Your task to perform on an android device: turn off data saver in the chrome app Image 0: 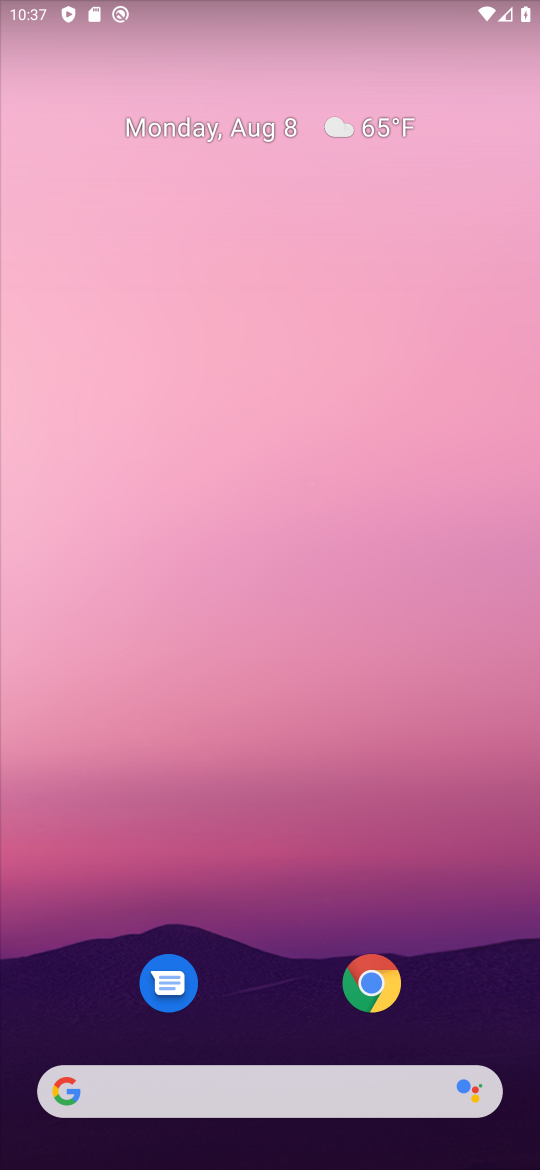
Step 0: drag from (296, 1004) to (290, 380)
Your task to perform on an android device: turn off data saver in the chrome app Image 1: 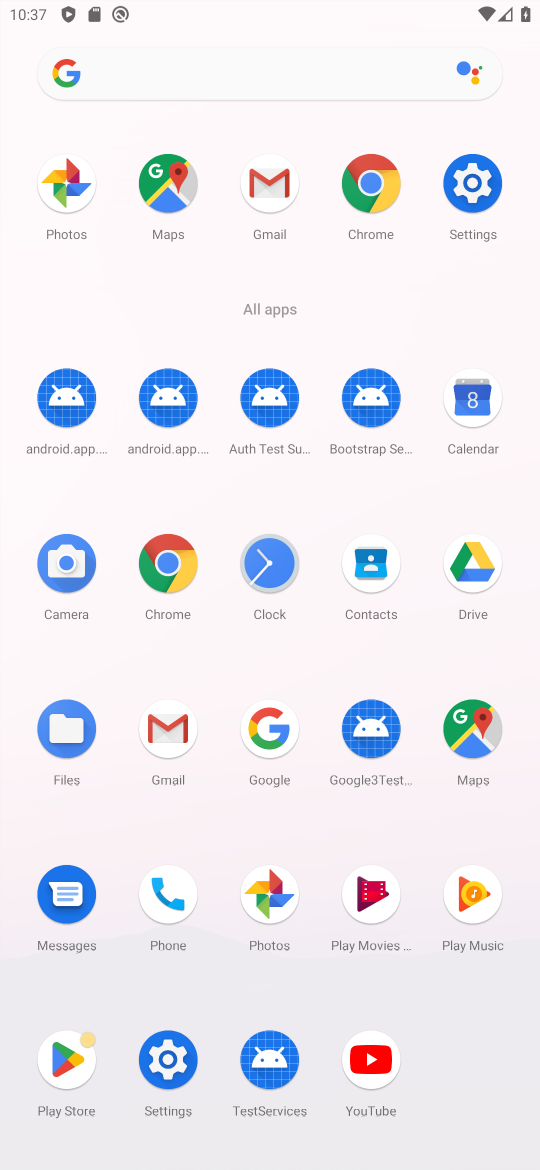
Step 1: click (375, 247)
Your task to perform on an android device: turn off data saver in the chrome app Image 2: 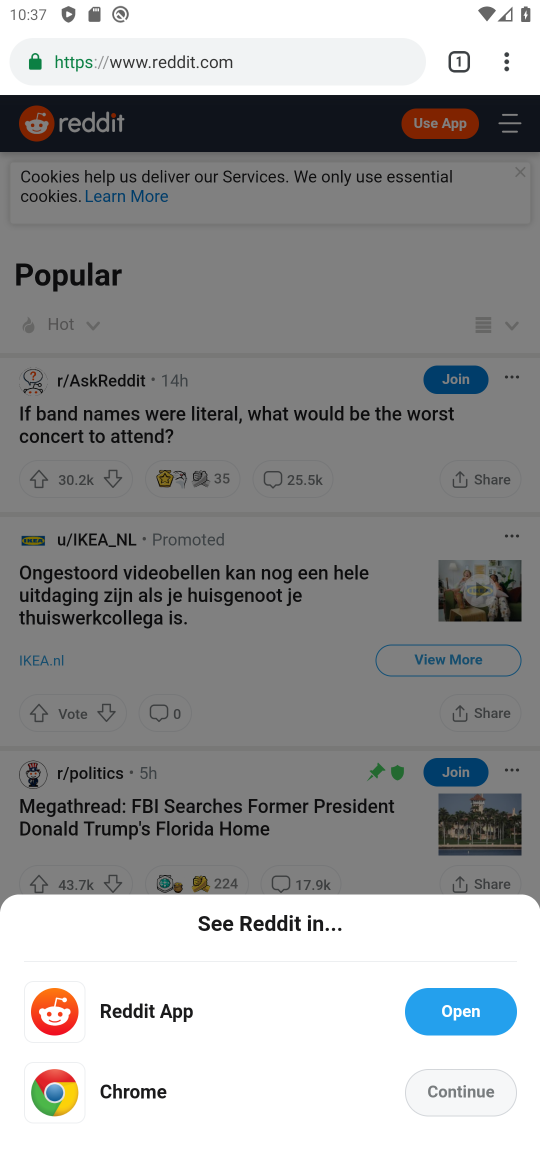
Step 2: click (438, 1101)
Your task to perform on an android device: turn off data saver in the chrome app Image 3: 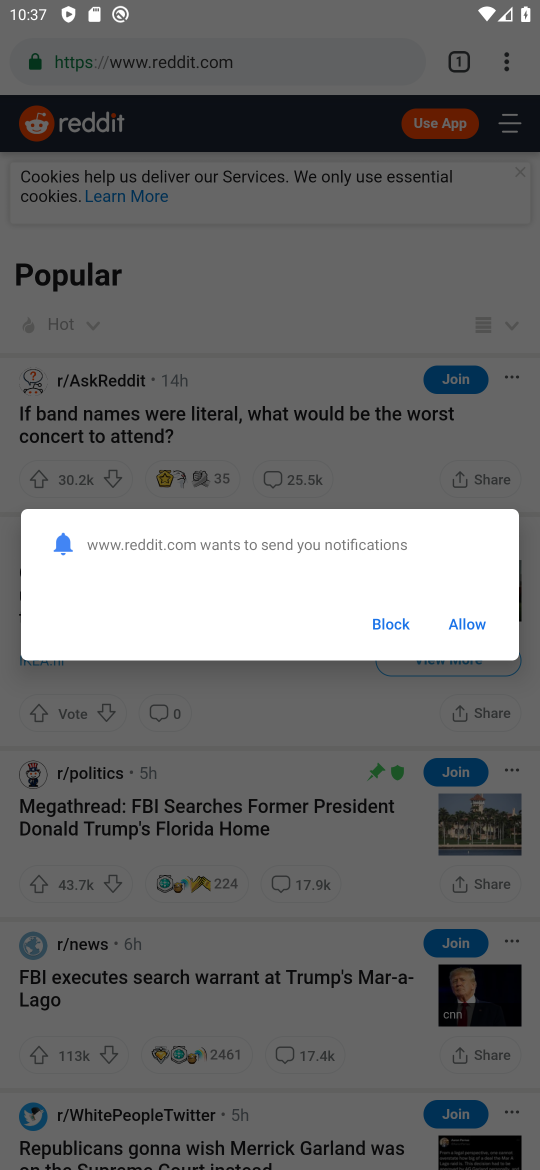
Step 3: click (507, 54)
Your task to perform on an android device: turn off data saver in the chrome app Image 4: 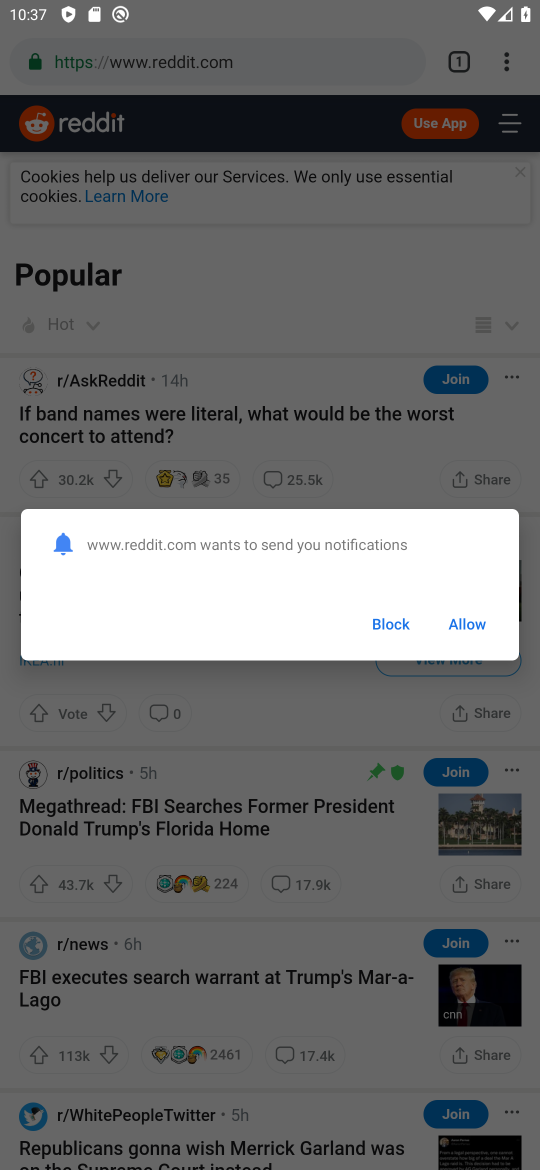
Step 4: click (362, 636)
Your task to perform on an android device: turn off data saver in the chrome app Image 5: 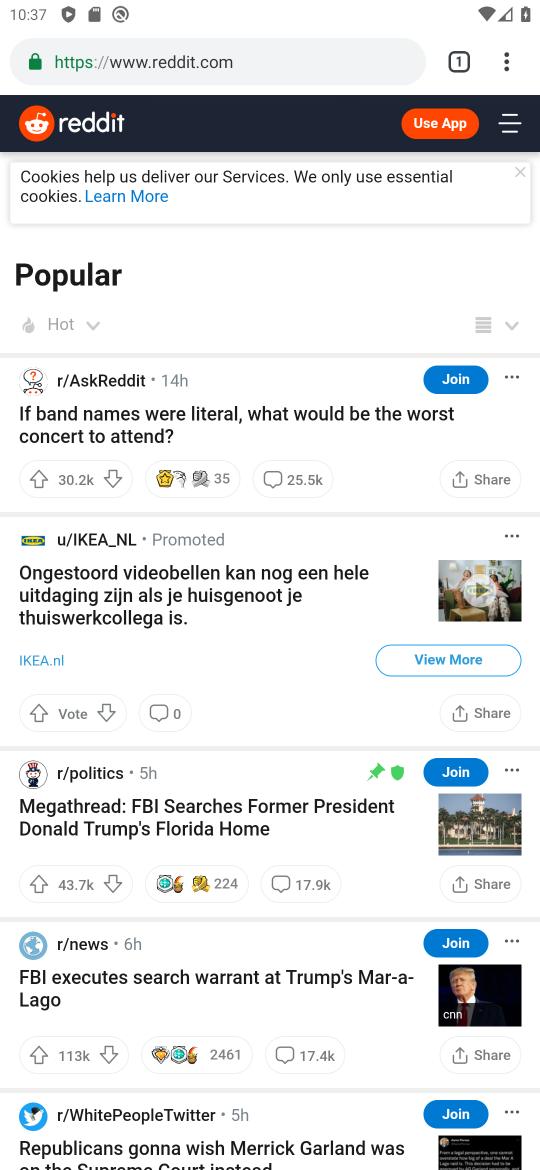
Step 5: click (508, 58)
Your task to perform on an android device: turn off data saver in the chrome app Image 6: 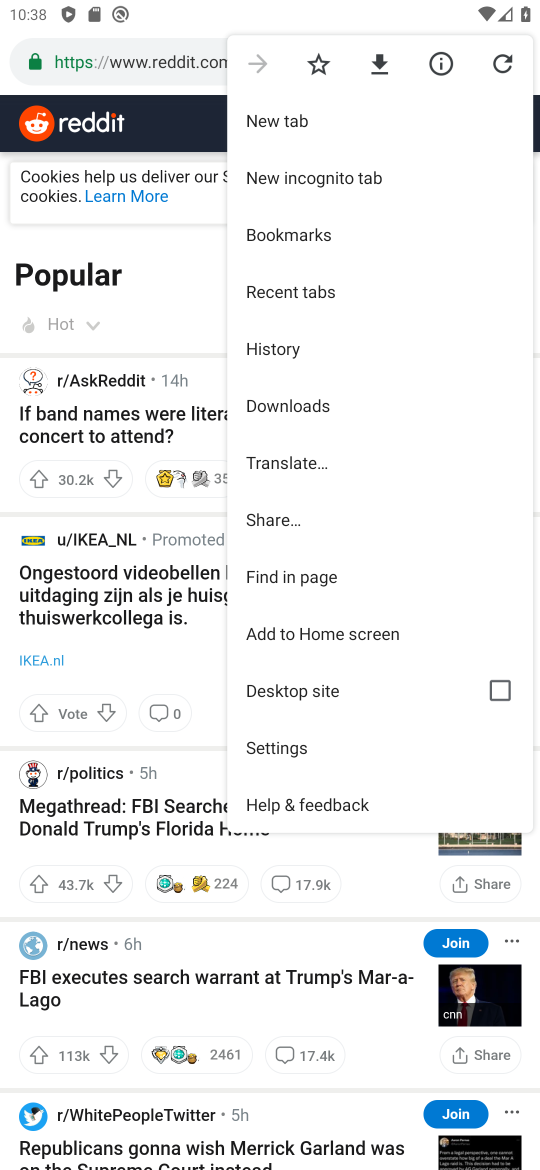
Step 6: click (286, 735)
Your task to perform on an android device: turn off data saver in the chrome app Image 7: 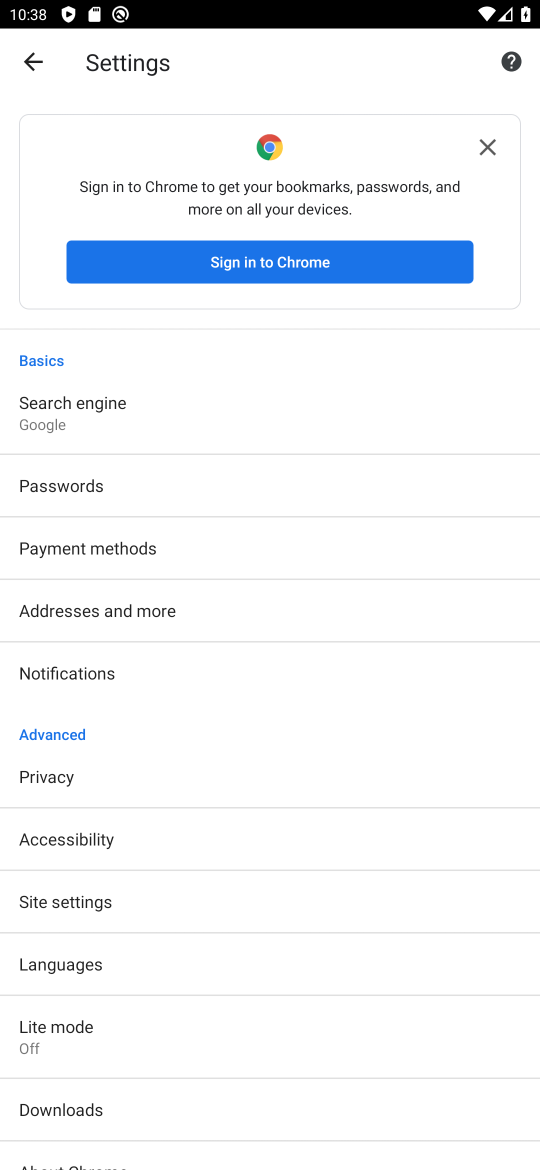
Step 7: click (210, 1010)
Your task to perform on an android device: turn off data saver in the chrome app Image 8: 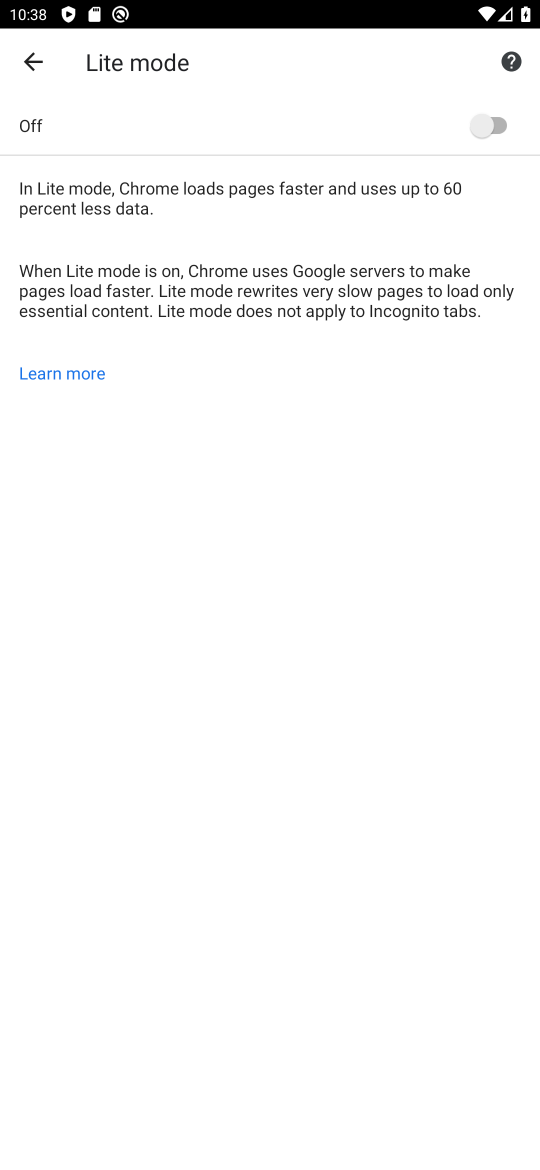
Step 8: click (461, 119)
Your task to perform on an android device: turn off data saver in the chrome app Image 9: 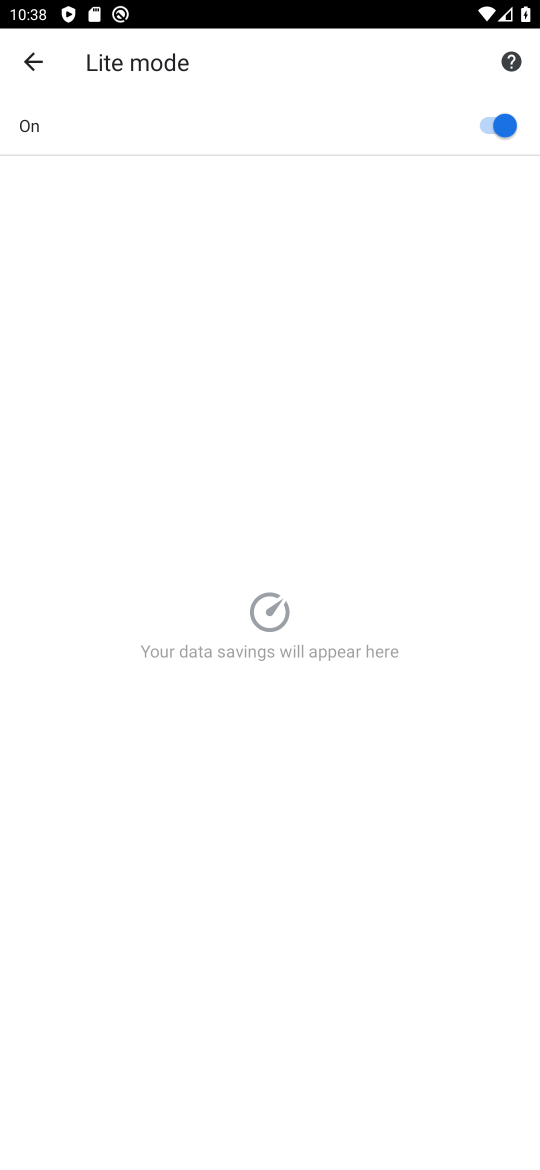
Step 9: task complete